Your task to perform on an android device: Toggle the flashlight Image 0: 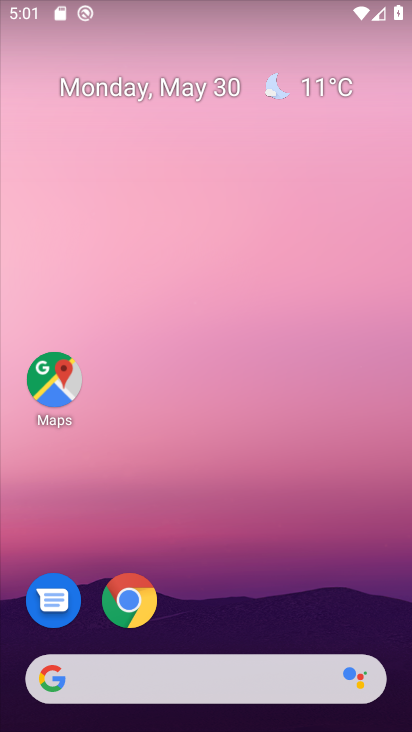
Step 0: drag from (269, 548) to (259, 110)
Your task to perform on an android device: Toggle the flashlight Image 1: 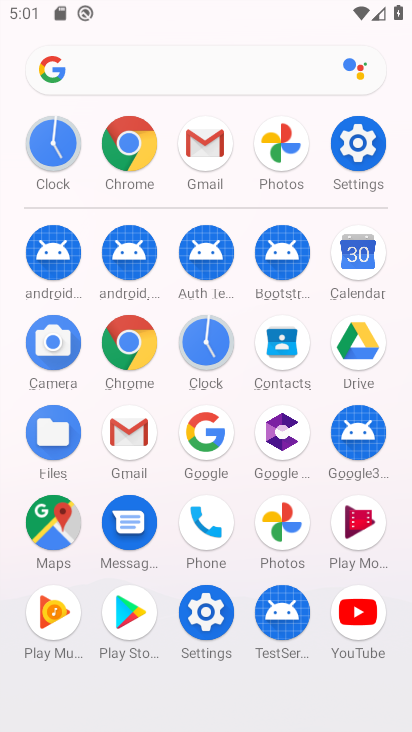
Step 1: click (349, 135)
Your task to perform on an android device: Toggle the flashlight Image 2: 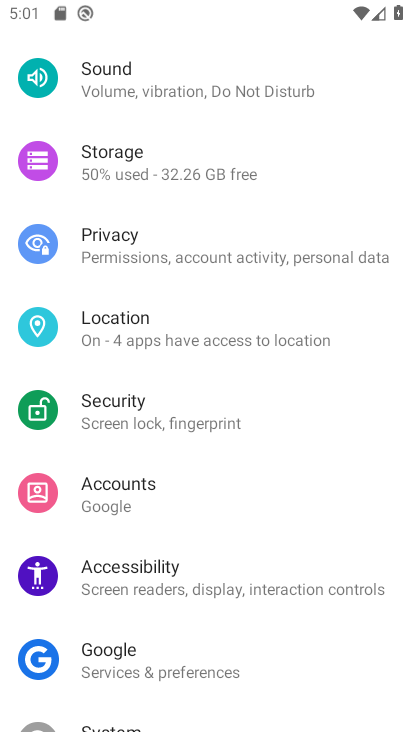
Step 2: task complete